Your task to perform on an android device: turn off picture-in-picture Image 0: 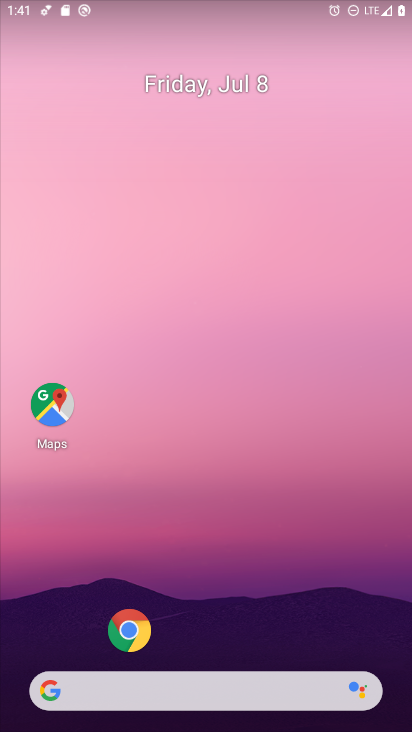
Step 0: drag from (254, 691) to (299, 47)
Your task to perform on an android device: turn off picture-in-picture Image 1: 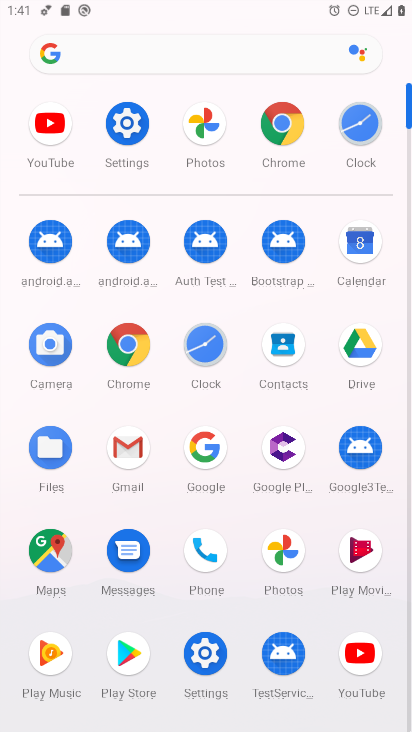
Step 1: click (136, 105)
Your task to perform on an android device: turn off picture-in-picture Image 2: 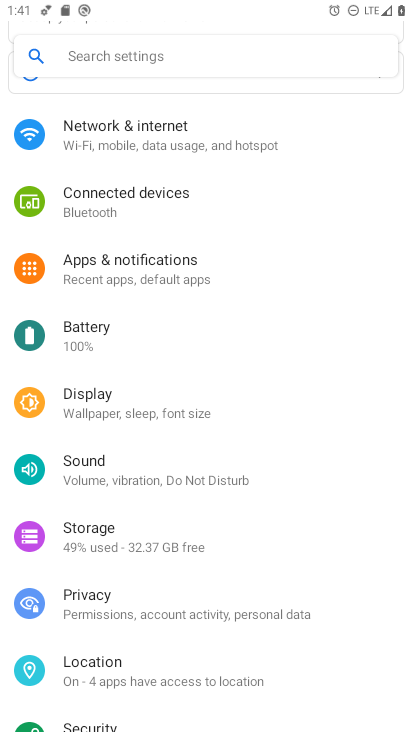
Step 2: click (150, 268)
Your task to perform on an android device: turn off picture-in-picture Image 3: 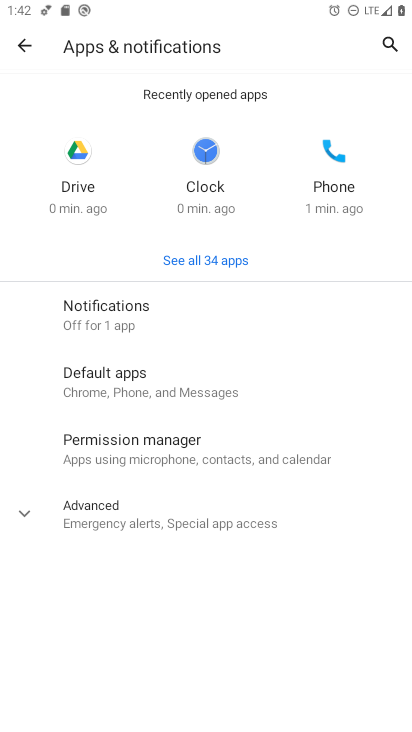
Step 3: click (119, 520)
Your task to perform on an android device: turn off picture-in-picture Image 4: 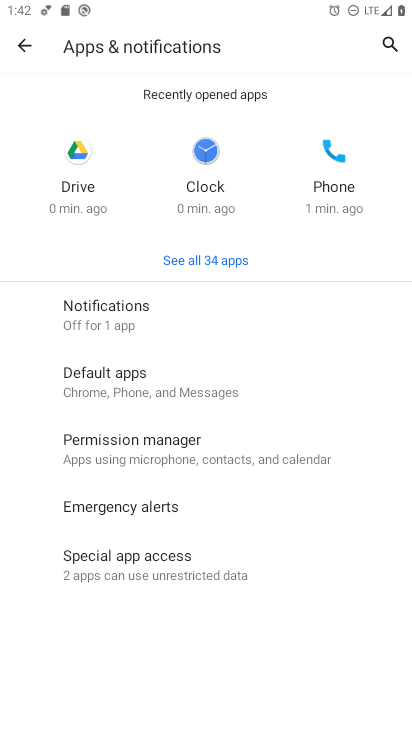
Step 4: click (146, 568)
Your task to perform on an android device: turn off picture-in-picture Image 5: 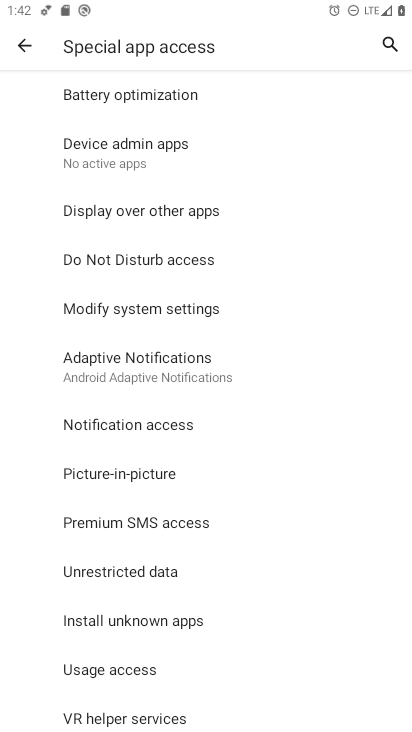
Step 5: drag from (152, 673) to (179, 708)
Your task to perform on an android device: turn off picture-in-picture Image 6: 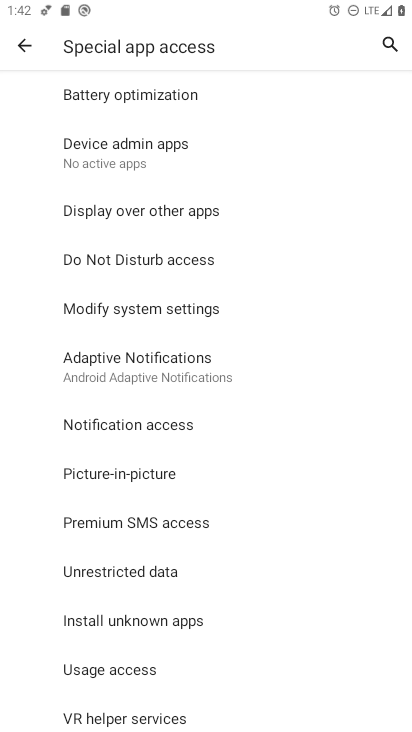
Step 6: click (186, 468)
Your task to perform on an android device: turn off picture-in-picture Image 7: 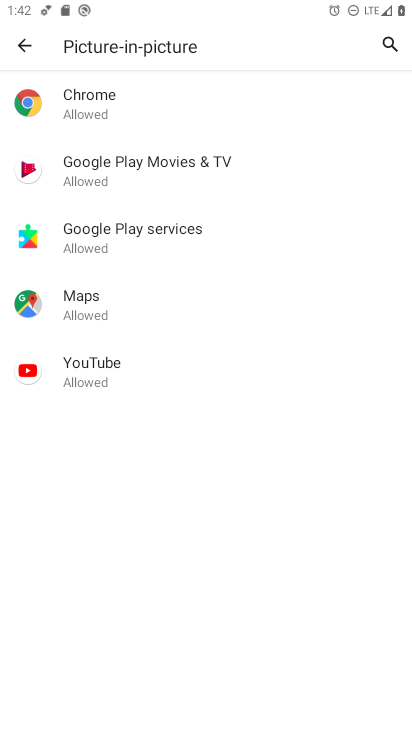
Step 7: click (132, 109)
Your task to perform on an android device: turn off picture-in-picture Image 8: 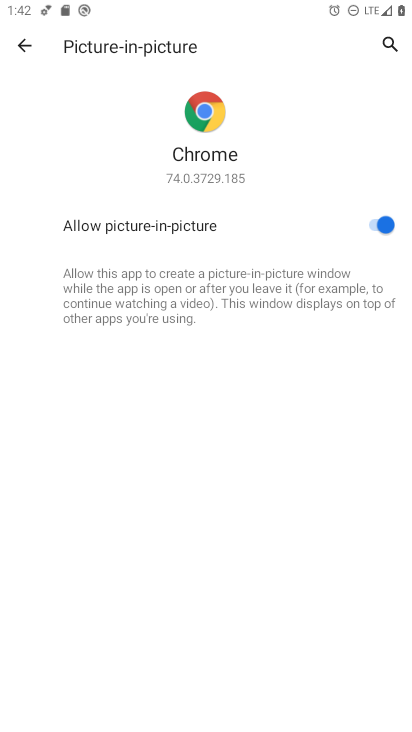
Step 8: click (376, 220)
Your task to perform on an android device: turn off picture-in-picture Image 9: 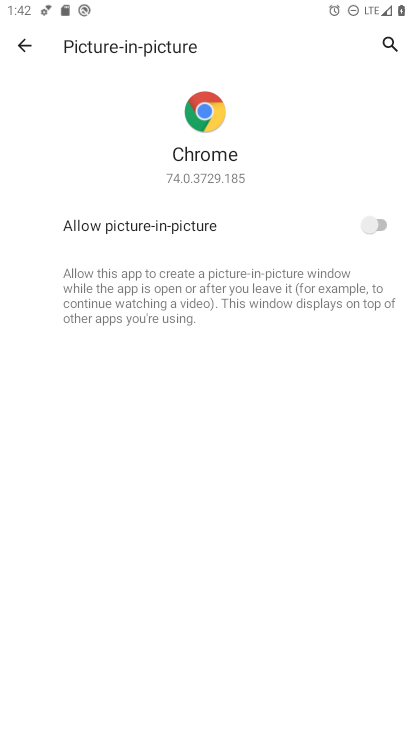
Step 9: press back button
Your task to perform on an android device: turn off picture-in-picture Image 10: 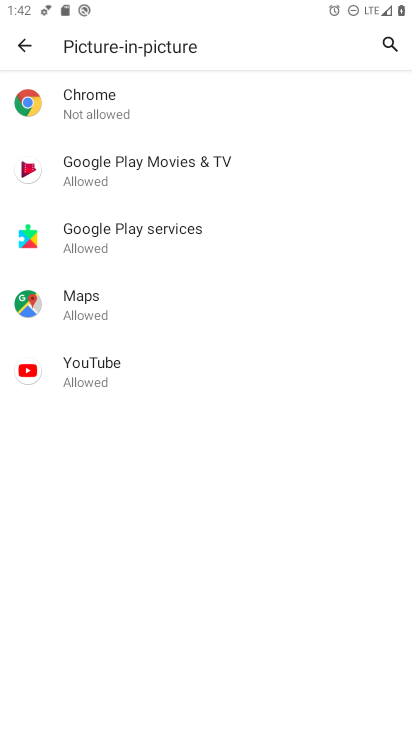
Step 10: click (182, 174)
Your task to perform on an android device: turn off picture-in-picture Image 11: 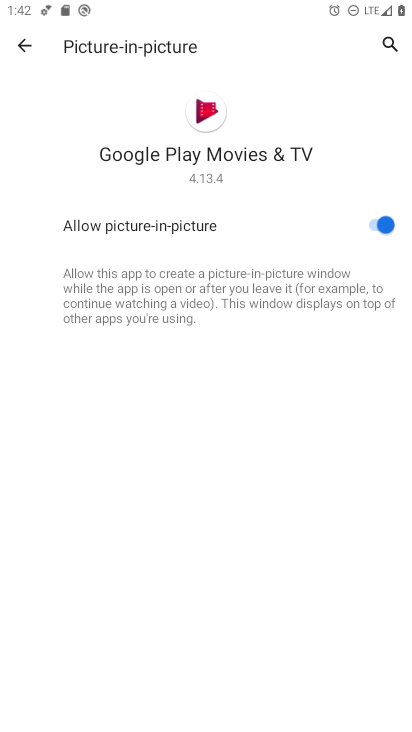
Step 11: click (371, 221)
Your task to perform on an android device: turn off picture-in-picture Image 12: 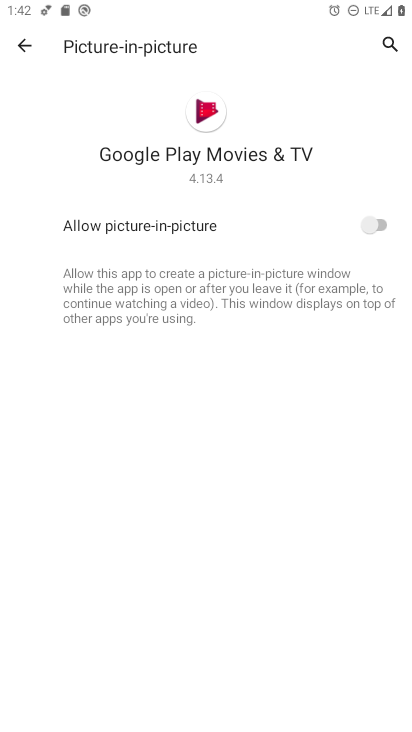
Step 12: press back button
Your task to perform on an android device: turn off picture-in-picture Image 13: 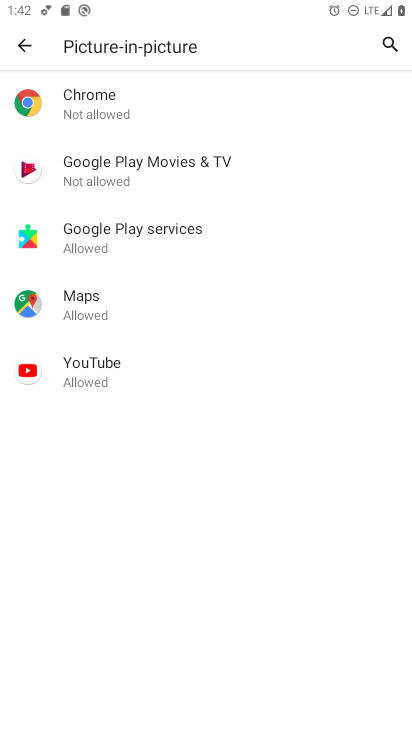
Step 13: click (252, 234)
Your task to perform on an android device: turn off picture-in-picture Image 14: 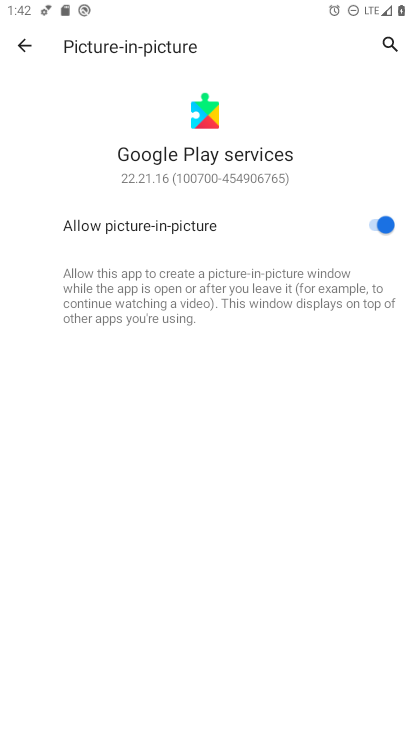
Step 14: click (375, 223)
Your task to perform on an android device: turn off picture-in-picture Image 15: 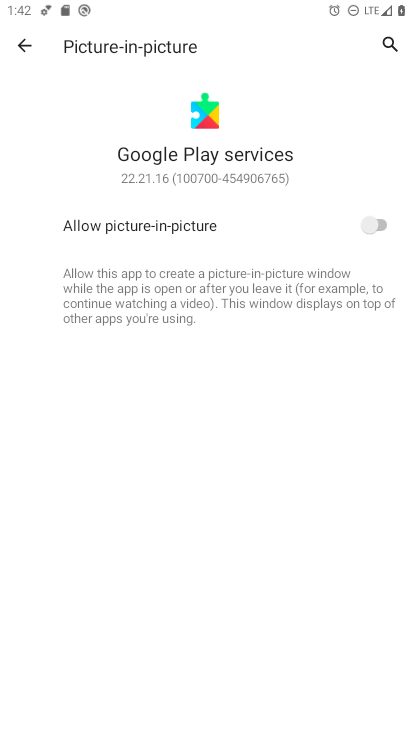
Step 15: press back button
Your task to perform on an android device: turn off picture-in-picture Image 16: 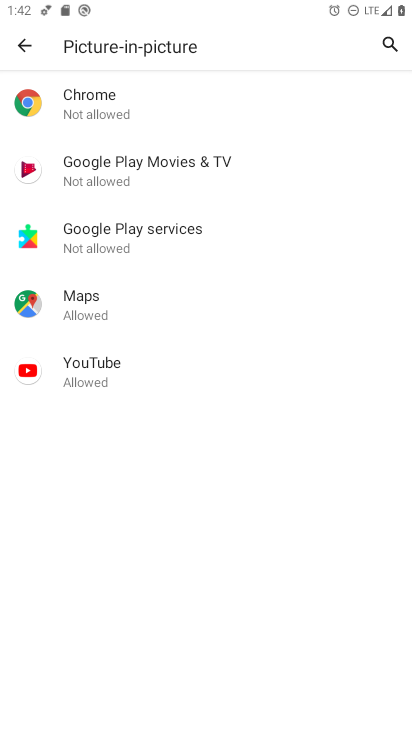
Step 16: click (188, 306)
Your task to perform on an android device: turn off picture-in-picture Image 17: 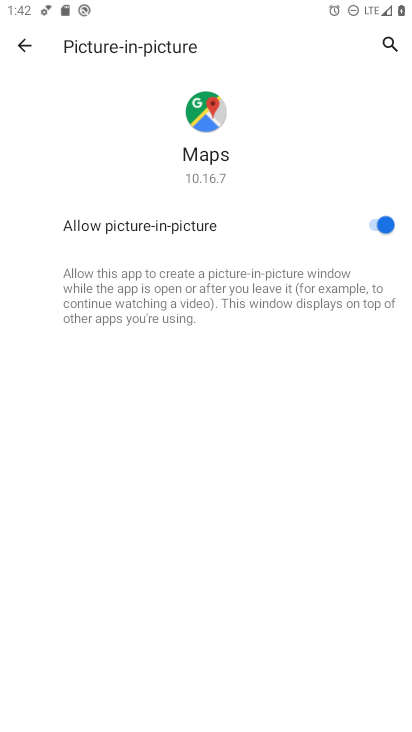
Step 17: click (374, 223)
Your task to perform on an android device: turn off picture-in-picture Image 18: 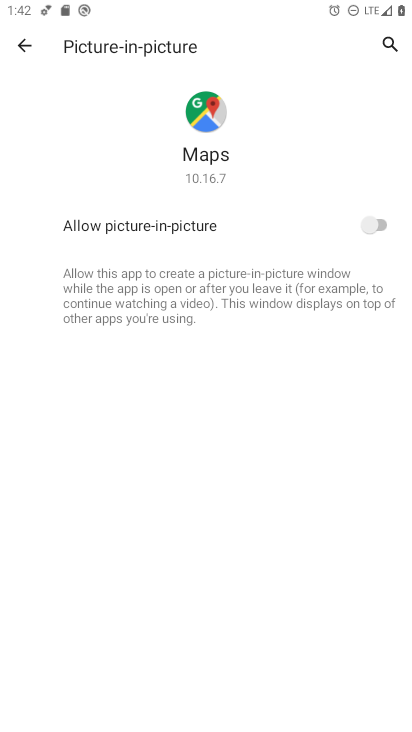
Step 18: press back button
Your task to perform on an android device: turn off picture-in-picture Image 19: 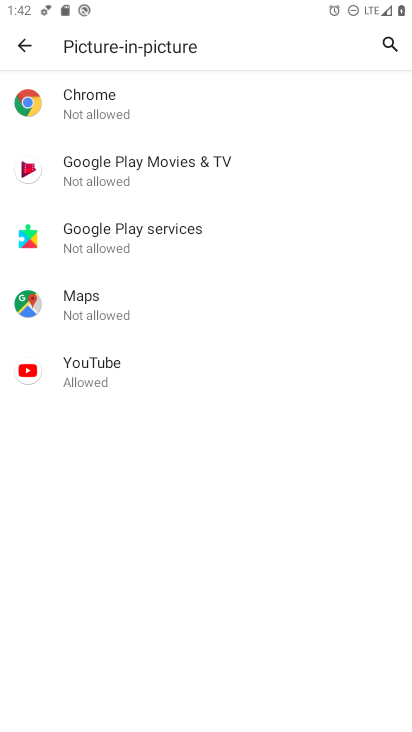
Step 19: click (179, 374)
Your task to perform on an android device: turn off picture-in-picture Image 20: 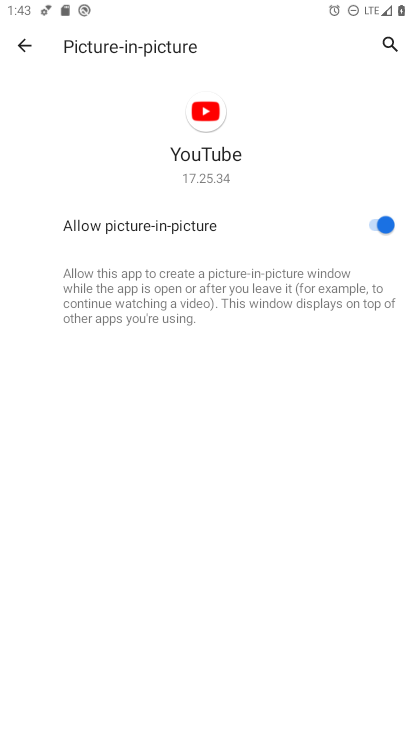
Step 20: click (382, 220)
Your task to perform on an android device: turn off picture-in-picture Image 21: 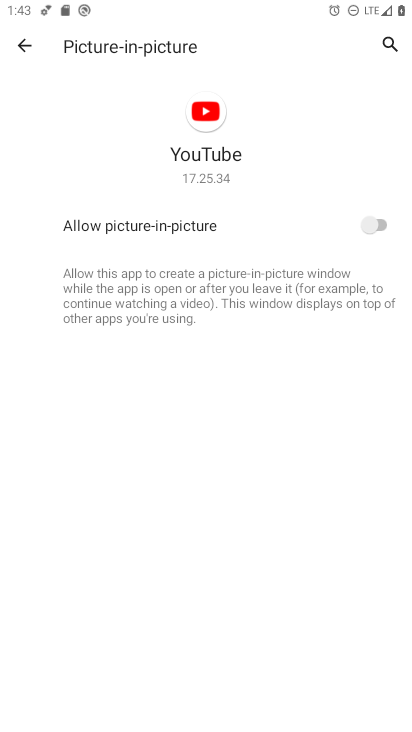
Step 21: task complete